Your task to perform on an android device: turn off sleep mode Image 0: 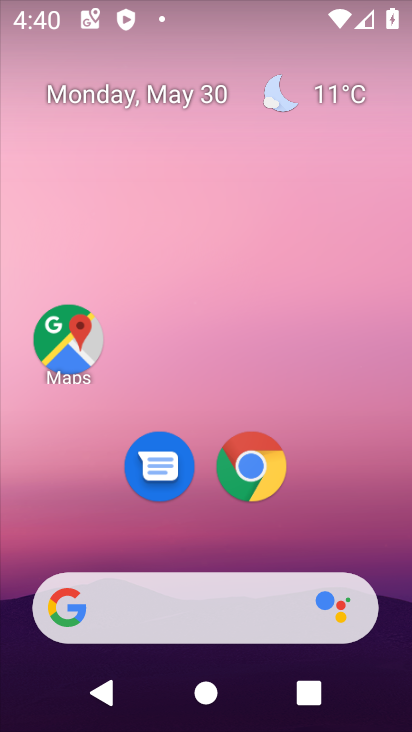
Step 0: click (297, 96)
Your task to perform on an android device: turn off sleep mode Image 1: 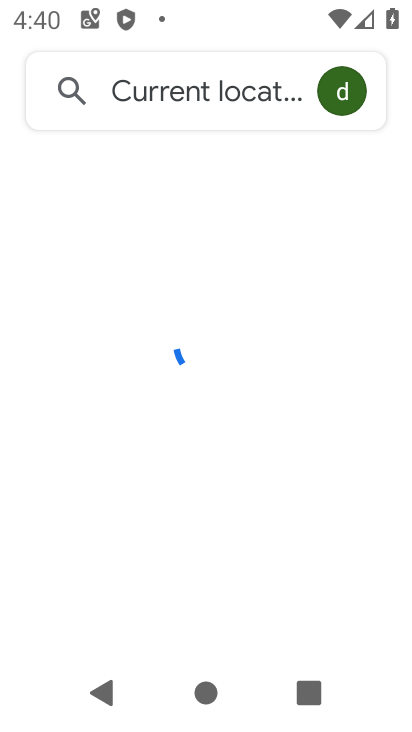
Step 1: press home button
Your task to perform on an android device: turn off sleep mode Image 2: 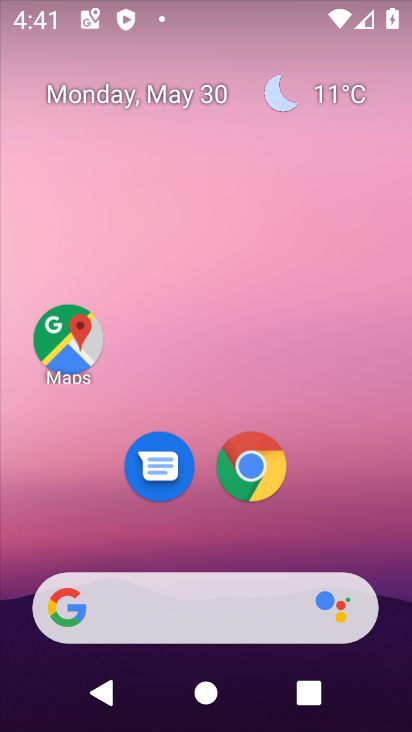
Step 2: drag from (307, 485) to (254, 101)
Your task to perform on an android device: turn off sleep mode Image 3: 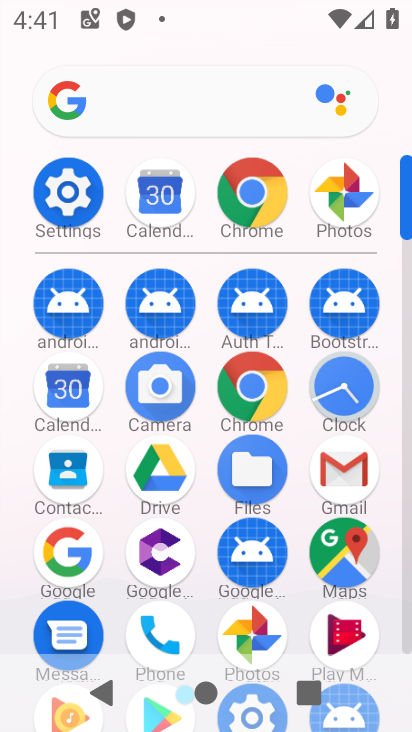
Step 3: click (55, 182)
Your task to perform on an android device: turn off sleep mode Image 4: 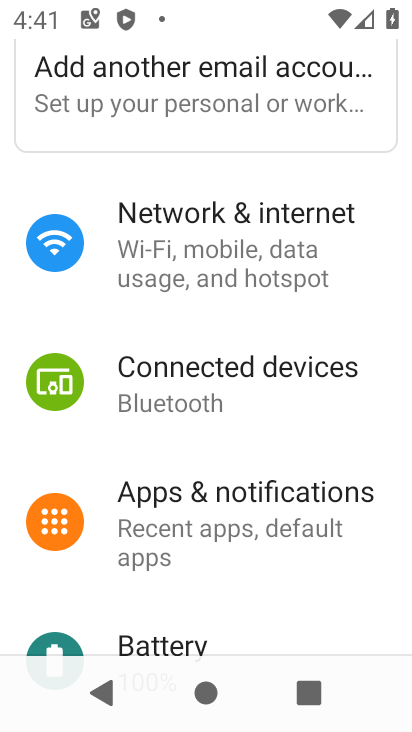
Step 4: drag from (250, 602) to (220, 268)
Your task to perform on an android device: turn off sleep mode Image 5: 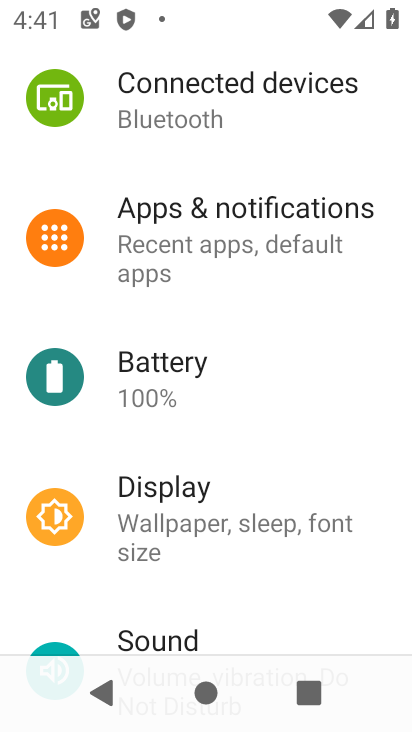
Step 5: drag from (220, 268) to (231, 376)
Your task to perform on an android device: turn off sleep mode Image 6: 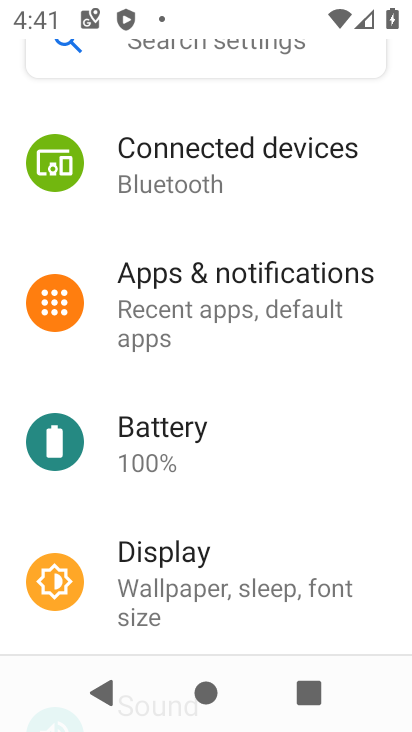
Step 6: click (155, 571)
Your task to perform on an android device: turn off sleep mode Image 7: 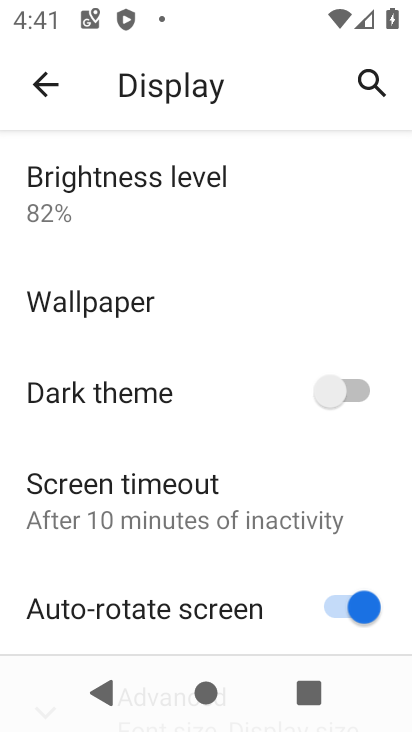
Step 7: drag from (180, 497) to (201, 64)
Your task to perform on an android device: turn off sleep mode Image 8: 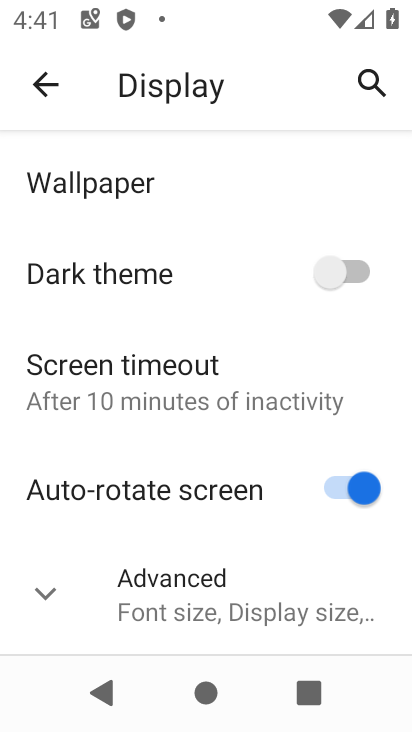
Step 8: click (209, 600)
Your task to perform on an android device: turn off sleep mode Image 9: 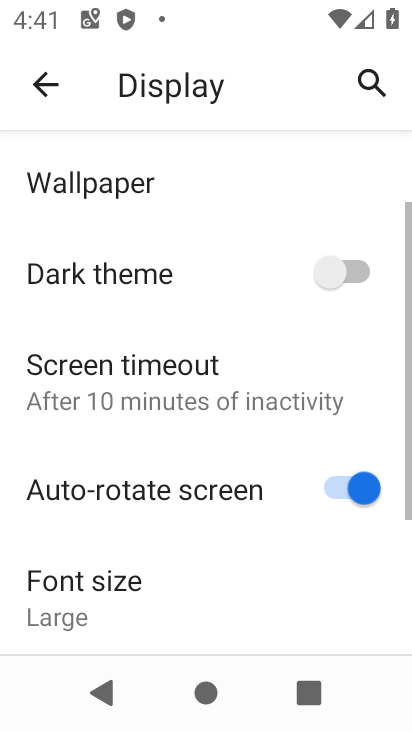
Step 9: drag from (212, 576) to (150, 84)
Your task to perform on an android device: turn off sleep mode Image 10: 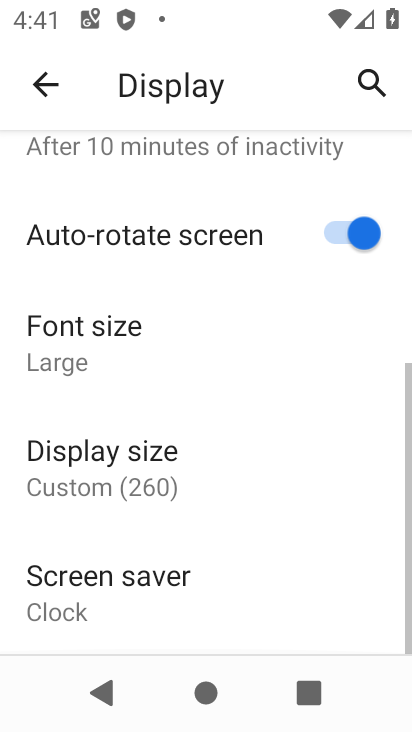
Step 10: drag from (180, 271) to (222, 593)
Your task to perform on an android device: turn off sleep mode Image 11: 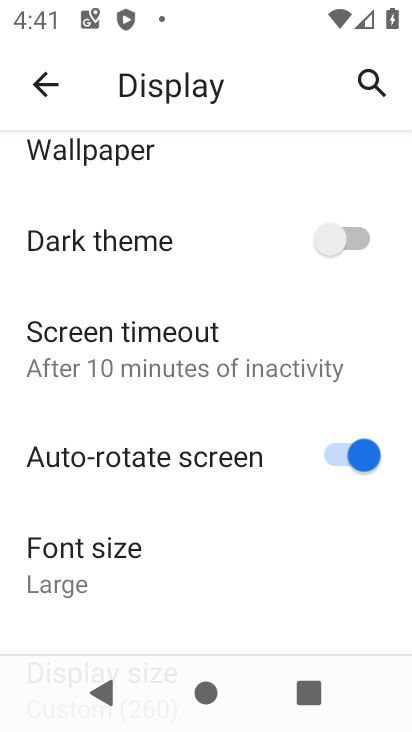
Step 11: drag from (250, 221) to (235, 521)
Your task to perform on an android device: turn off sleep mode Image 12: 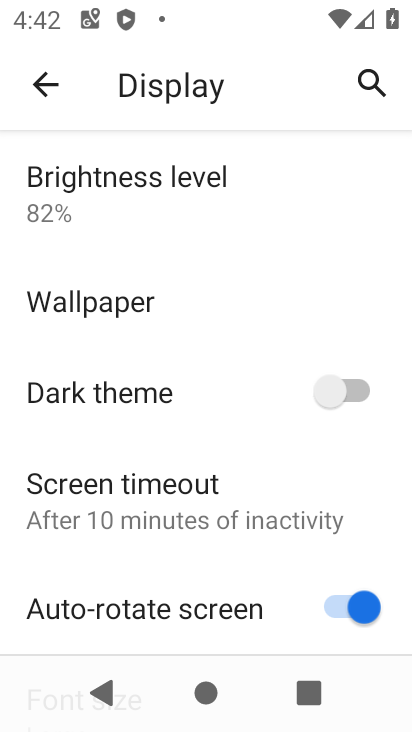
Step 12: click (221, 493)
Your task to perform on an android device: turn off sleep mode Image 13: 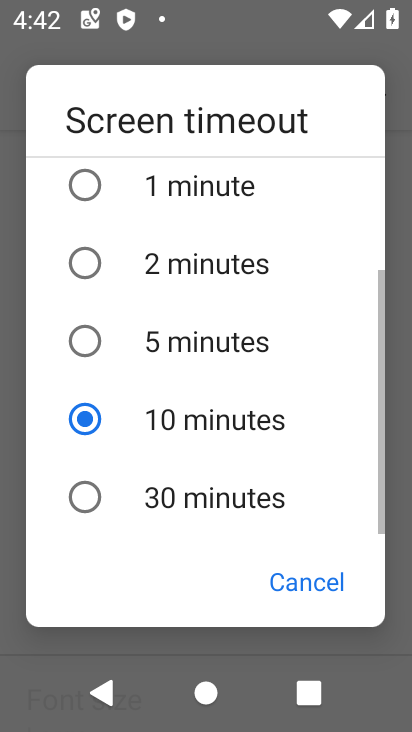
Step 13: task complete